Your task to perform on an android device: Open calendar and show me the first week of next month Image 0: 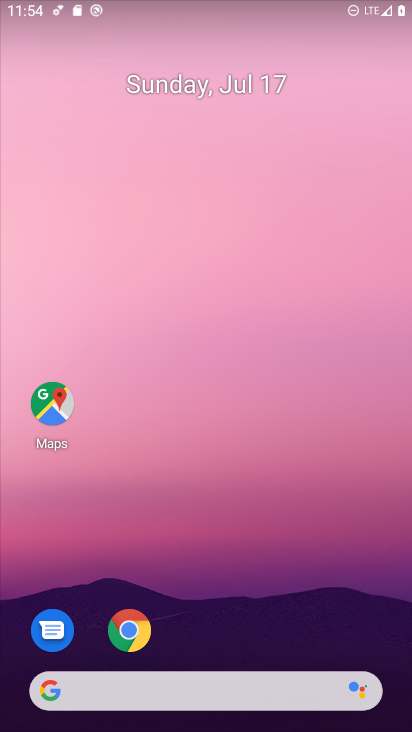
Step 0: drag from (216, 636) to (245, 210)
Your task to perform on an android device: Open calendar and show me the first week of next month Image 1: 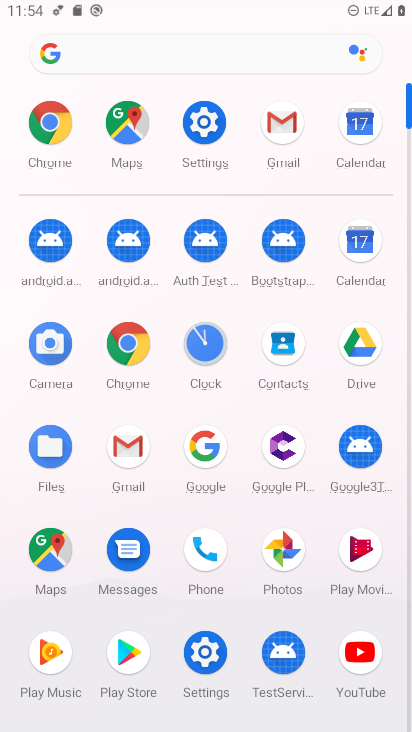
Step 1: click (381, 272)
Your task to perform on an android device: Open calendar and show me the first week of next month Image 2: 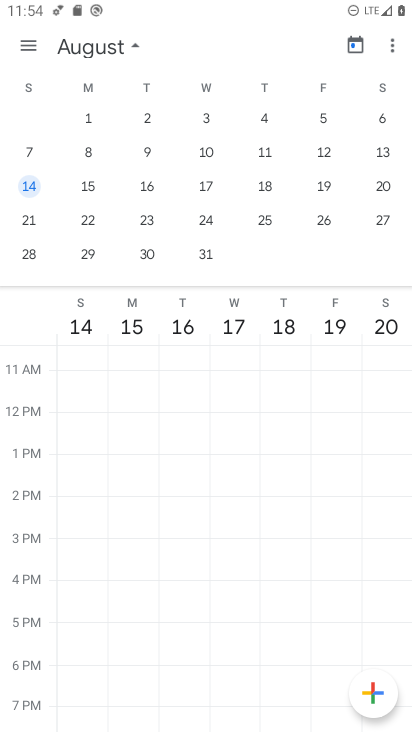
Step 2: click (87, 118)
Your task to perform on an android device: Open calendar and show me the first week of next month Image 3: 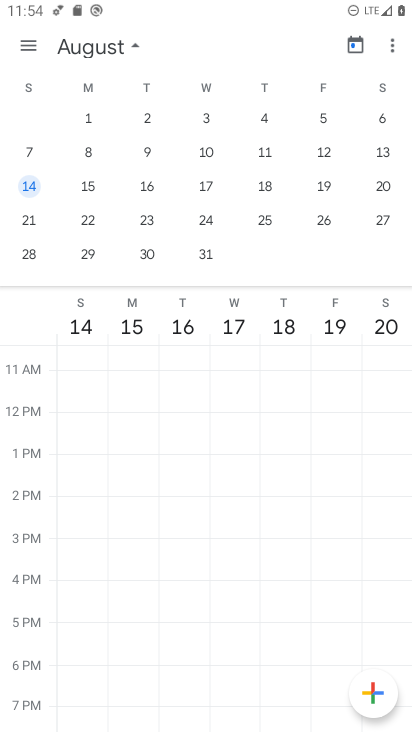
Step 3: click (87, 118)
Your task to perform on an android device: Open calendar and show me the first week of next month Image 4: 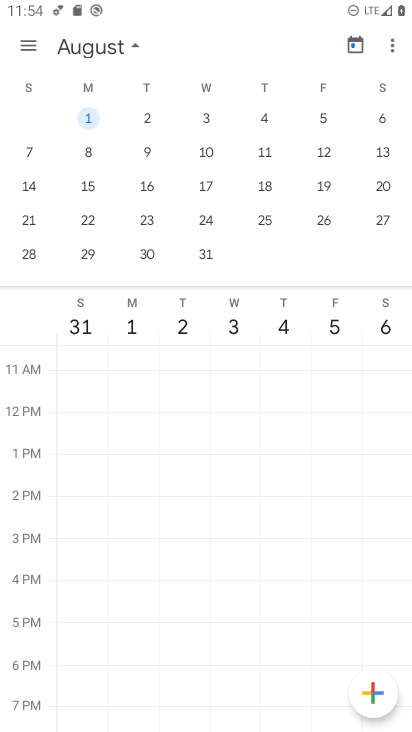
Step 4: task complete